Your task to perform on an android device: add a contact in the contacts app Image 0: 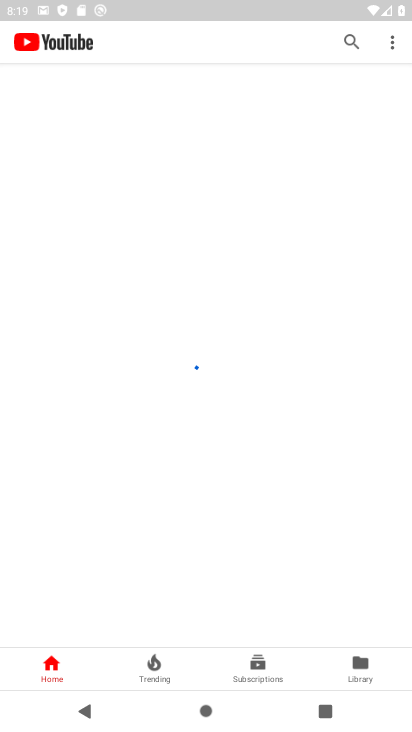
Step 0: press home button
Your task to perform on an android device: add a contact in the contacts app Image 1: 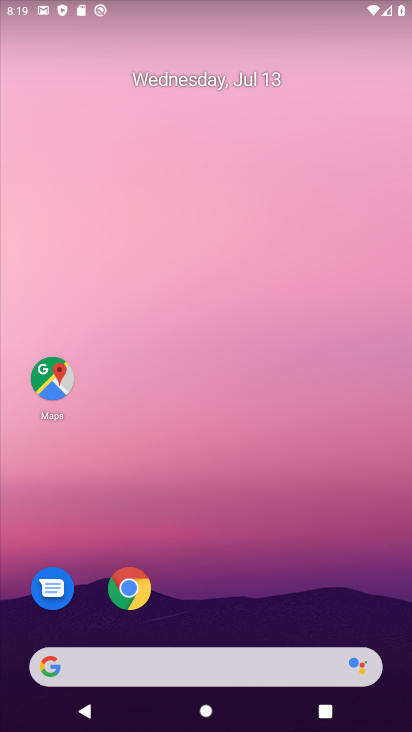
Step 1: drag from (210, 615) to (233, 235)
Your task to perform on an android device: add a contact in the contacts app Image 2: 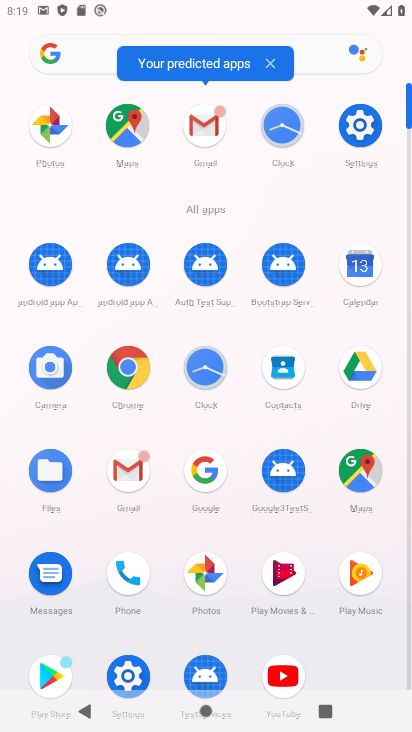
Step 2: click (282, 377)
Your task to perform on an android device: add a contact in the contacts app Image 3: 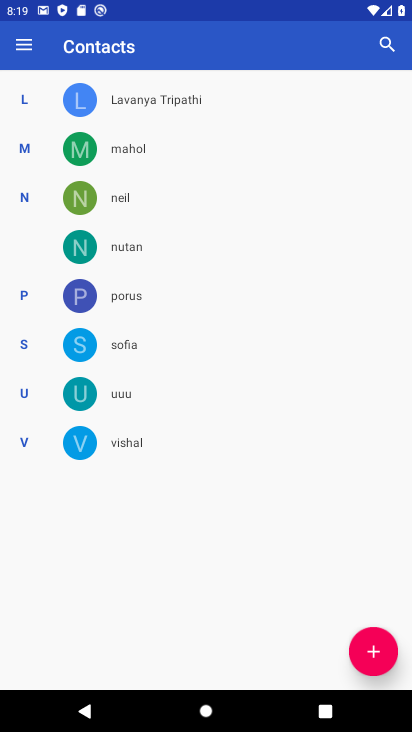
Step 3: click (374, 648)
Your task to perform on an android device: add a contact in the contacts app Image 4: 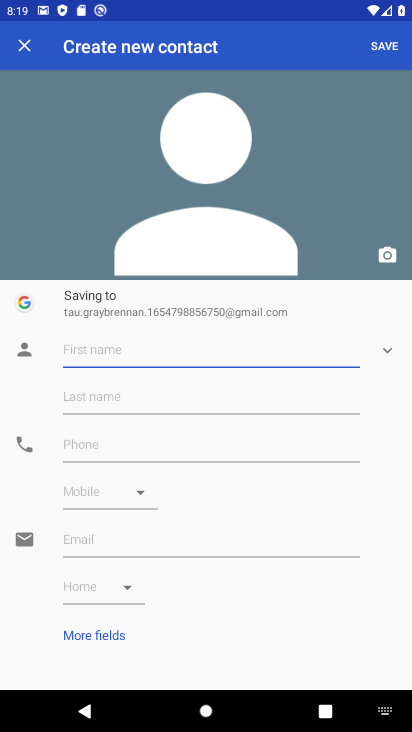
Step 4: type "juguhjf"
Your task to perform on an android device: add a contact in the contacts app Image 5: 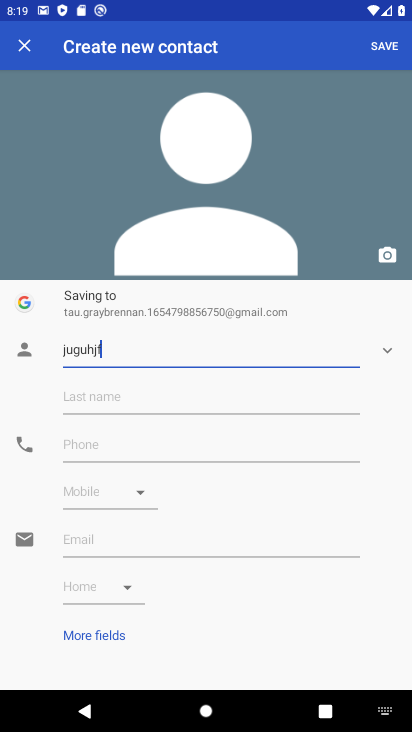
Step 5: click (106, 445)
Your task to perform on an android device: add a contact in the contacts app Image 6: 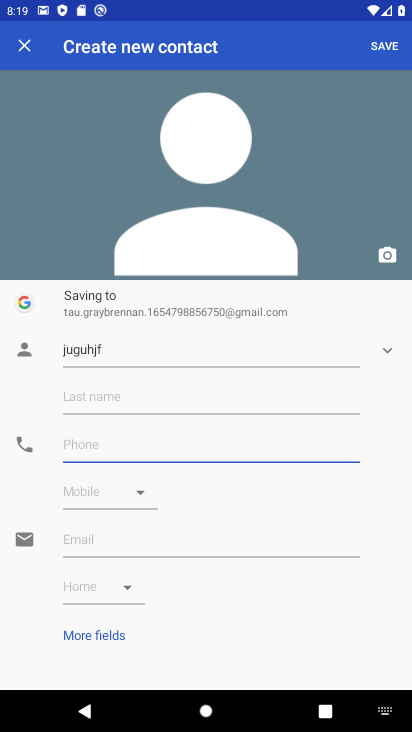
Step 6: type "85656356365"
Your task to perform on an android device: add a contact in the contacts app Image 7: 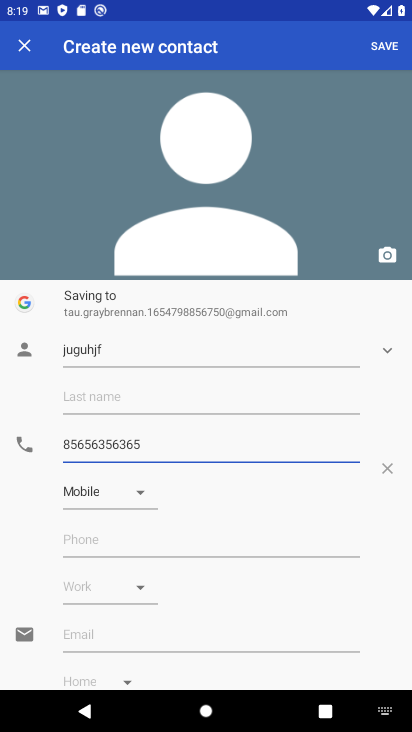
Step 7: click (381, 49)
Your task to perform on an android device: add a contact in the contacts app Image 8: 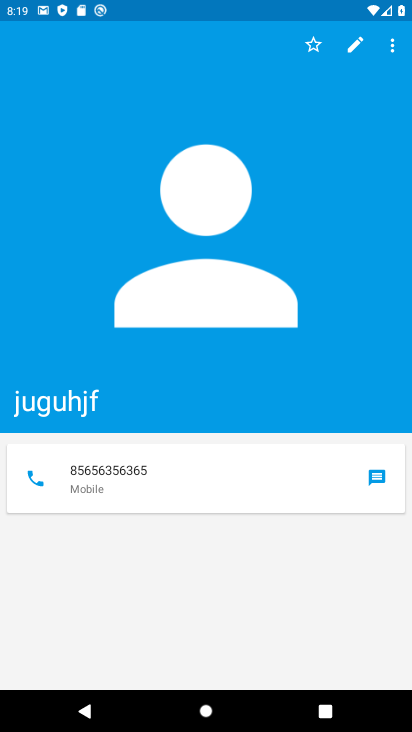
Step 8: task complete